Your task to perform on an android device: check google app version Image 0: 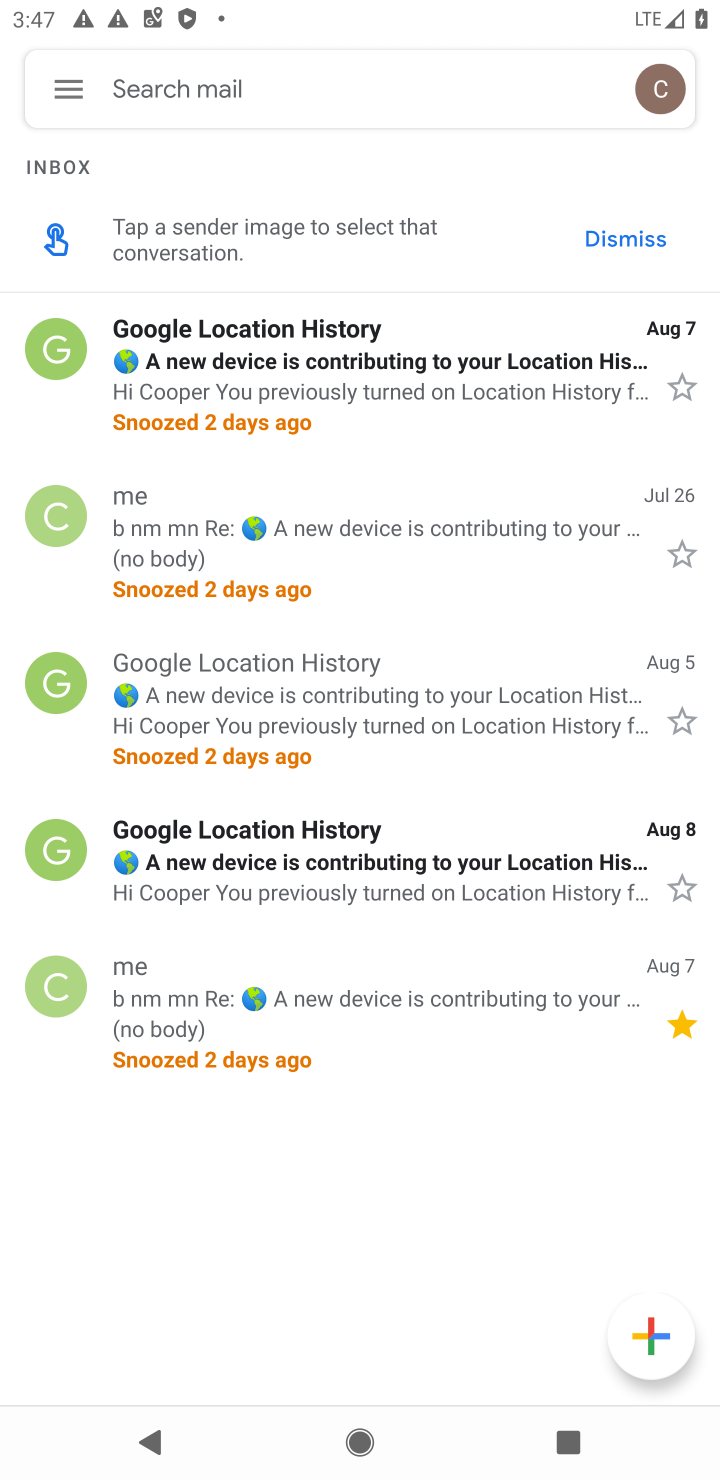
Step 0: press home button
Your task to perform on an android device: check google app version Image 1: 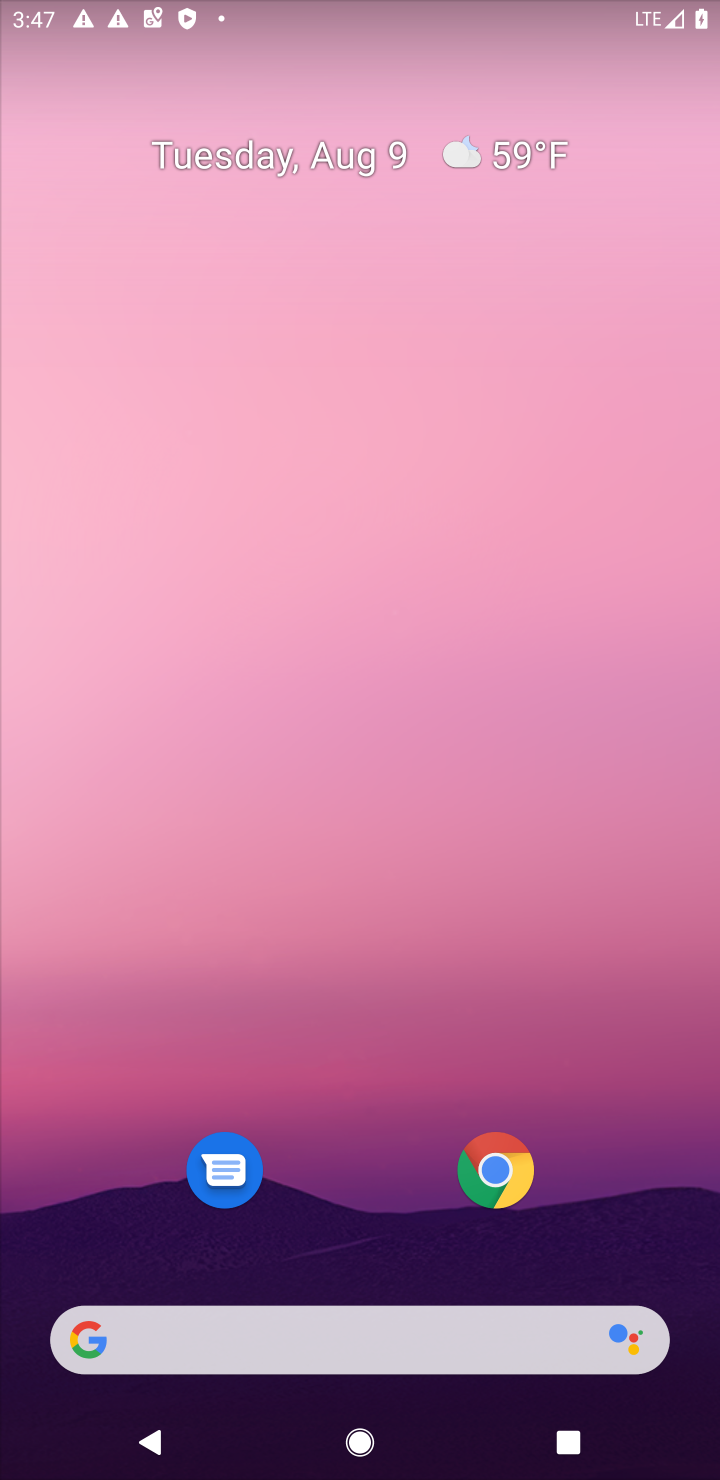
Step 1: drag from (354, 1008) to (366, 31)
Your task to perform on an android device: check google app version Image 2: 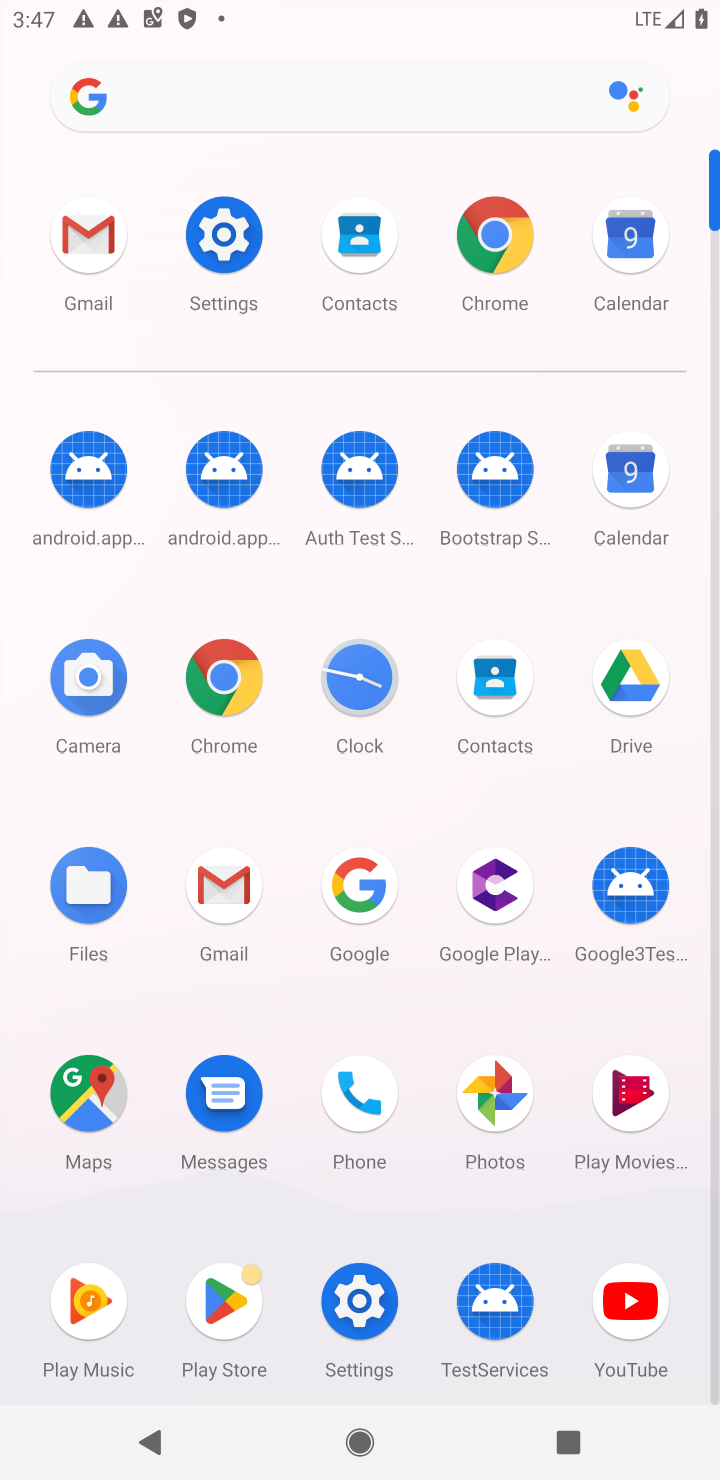
Step 2: click (346, 869)
Your task to perform on an android device: check google app version Image 3: 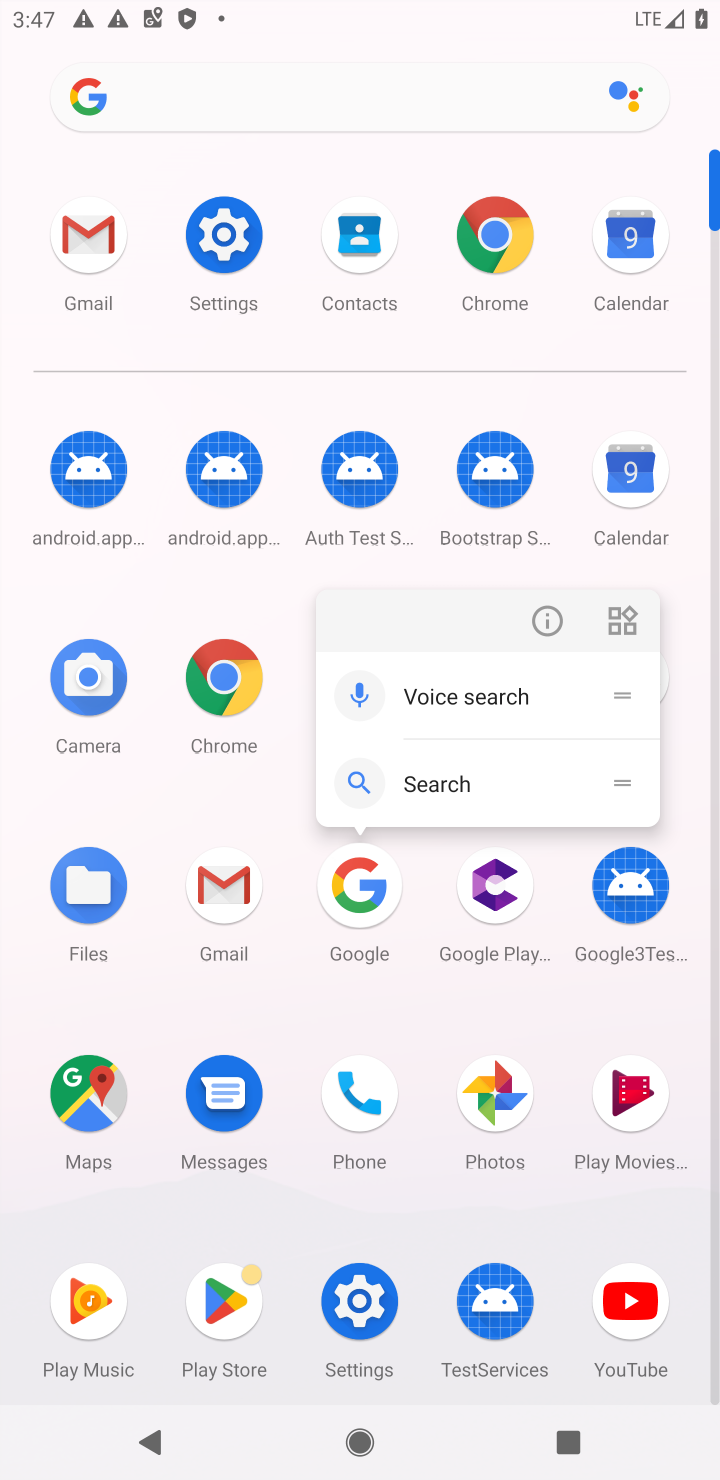
Step 3: click (544, 625)
Your task to perform on an android device: check google app version Image 4: 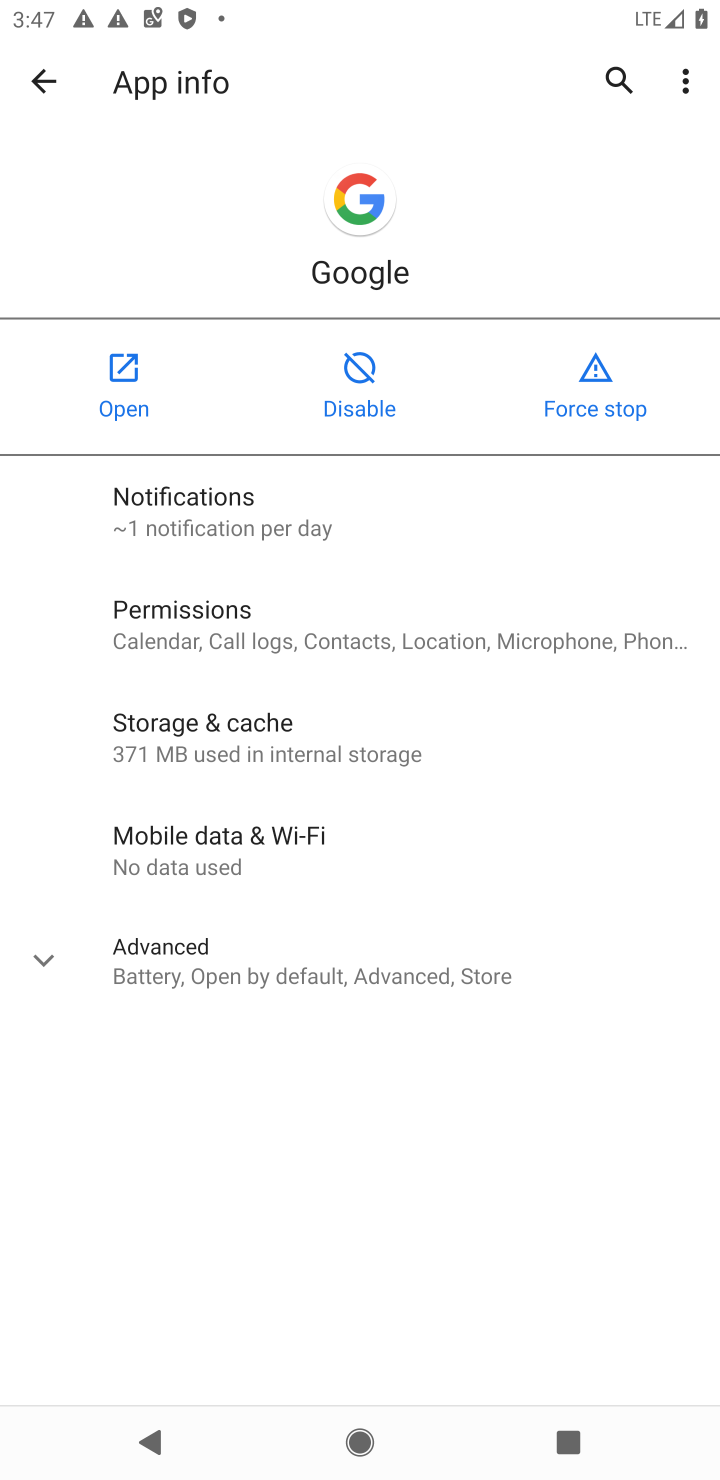
Step 4: click (57, 957)
Your task to perform on an android device: check google app version Image 5: 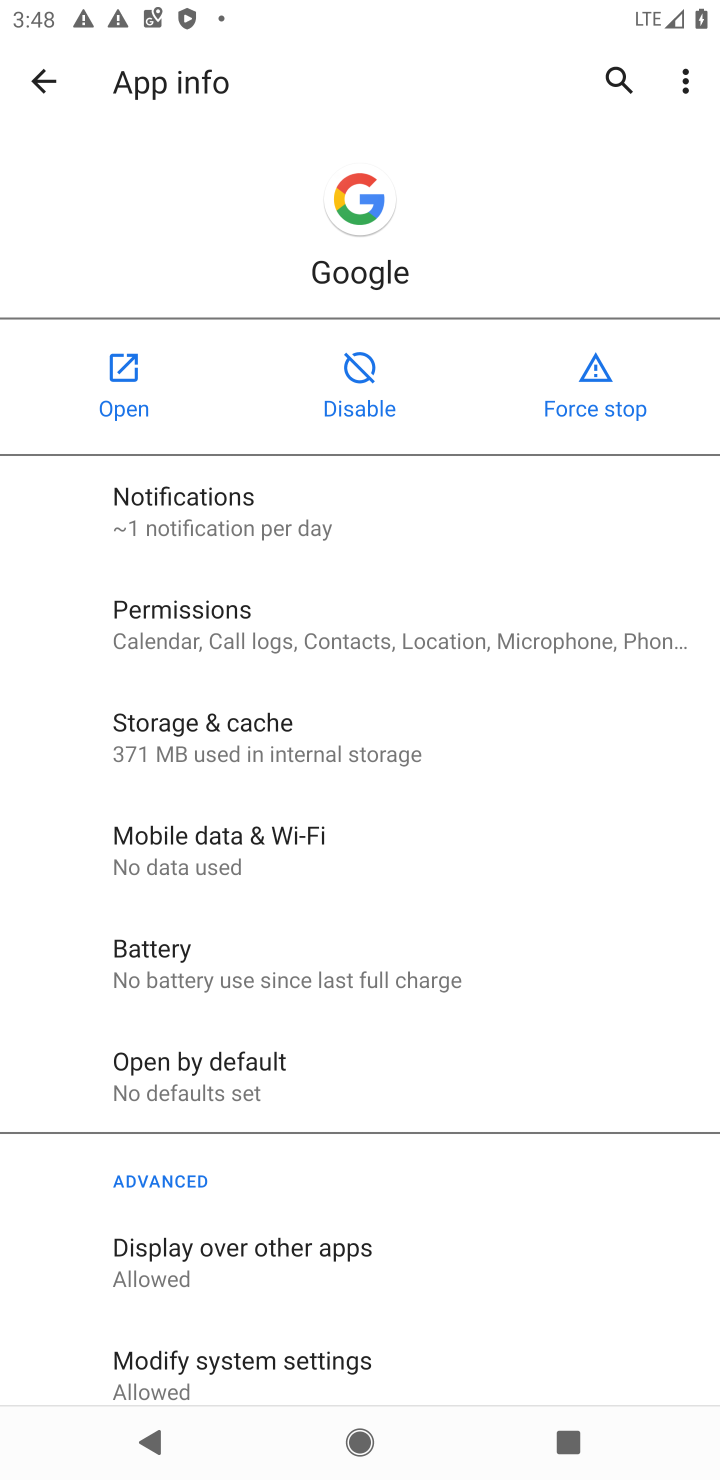
Step 5: task complete